Your task to perform on an android device: Open Android settings Image 0: 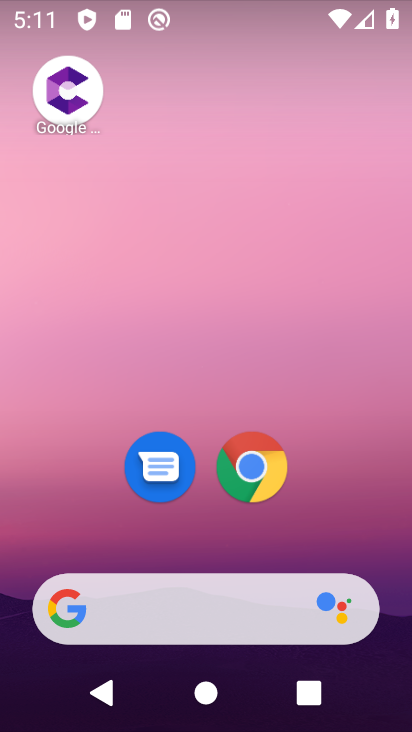
Step 0: drag from (206, 395) to (277, 26)
Your task to perform on an android device: Open Android settings Image 1: 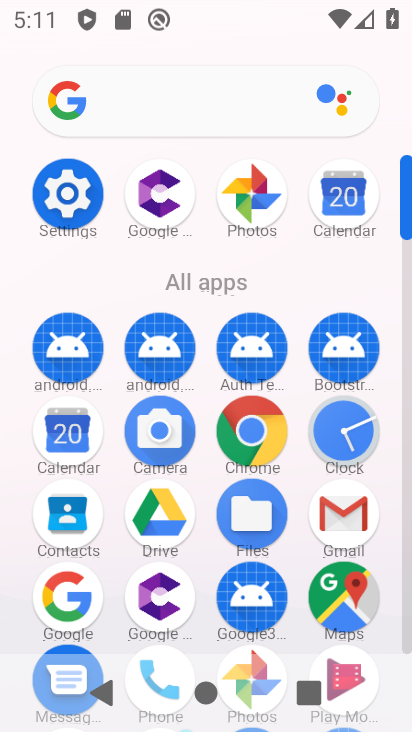
Step 1: click (80, 214)
Your task to perform on an android device: Open Android settings Image 2: 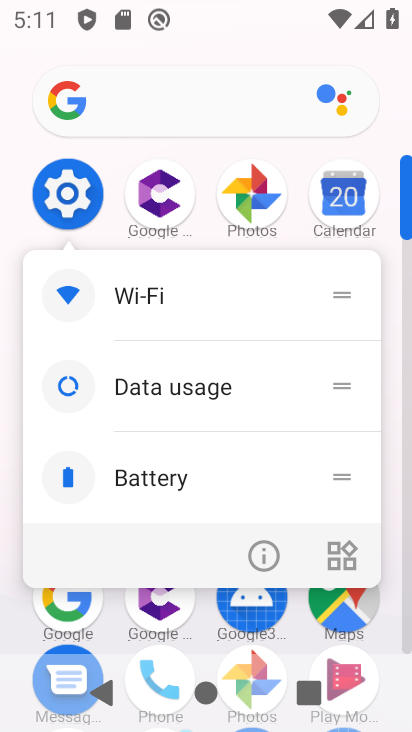
Step 2: click (82, 214)
Your task to perform on an android device: Open Android settings Image 3: 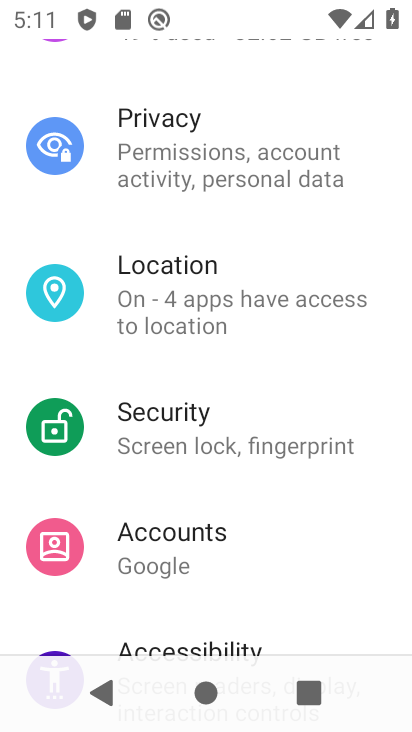
Step 3: drag from (181, 543) to (225, 15)
Your task to perform on an android device: Open Android settings Image 4: 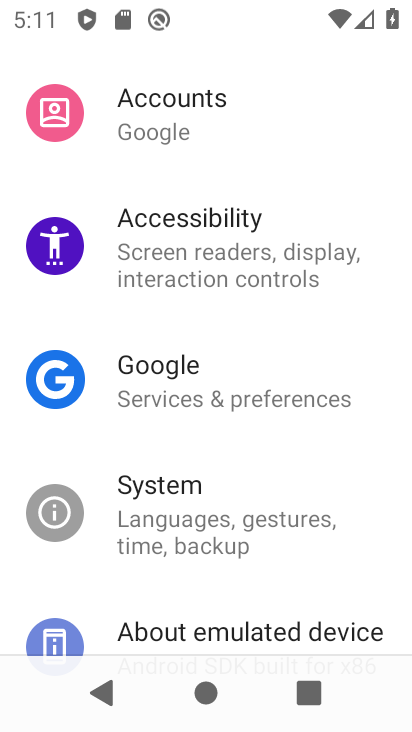
Step 4: drag from (157, 542) to (200, 24)
Your task to perform on an android device: Open Android settings Image 5: 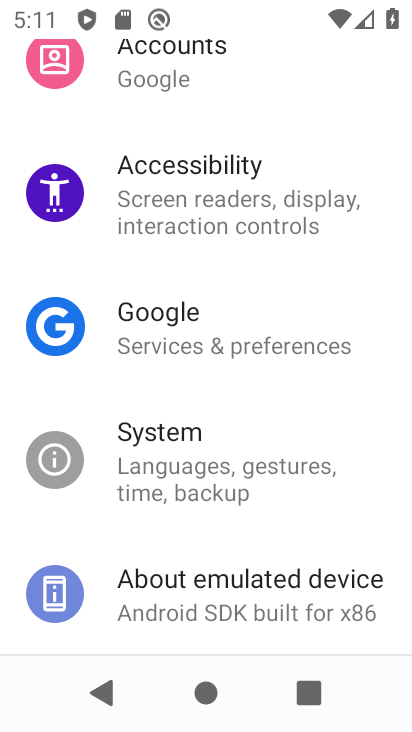
Step 5: drag from (210, 464) to (262, 207)
Your task to perform on an android device: Open Android settings Image 6: 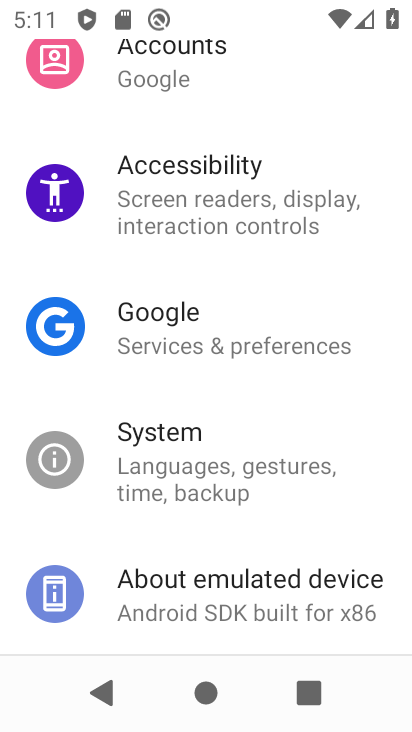
Step 6: click (227, 621)
Your task to perform on an android device: Open Android settings Image 7: 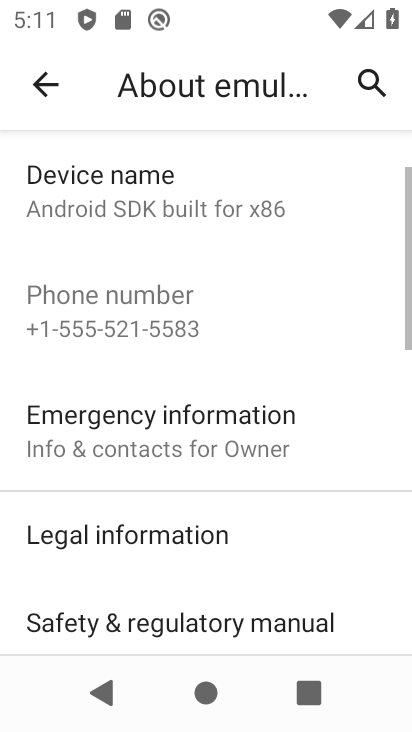
Step 7: drag from (156, 528) to (246, 54)
Your task to perform on an android device: Open Android settings Image 8: 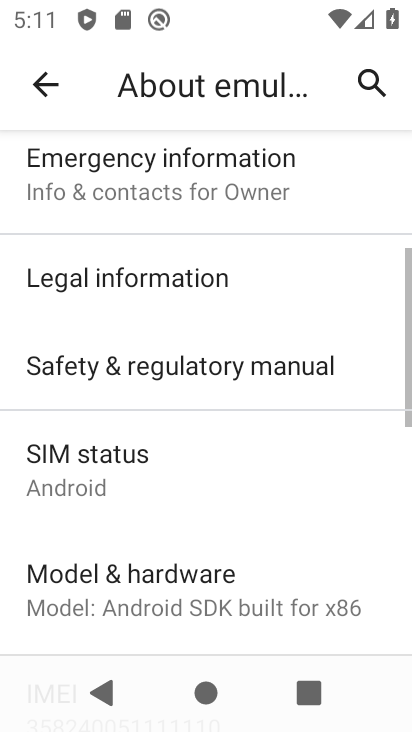
Step 8: drag from (161, 549) to (190, 205)
Your task to perform on an android device: Open Android settings Image 9: 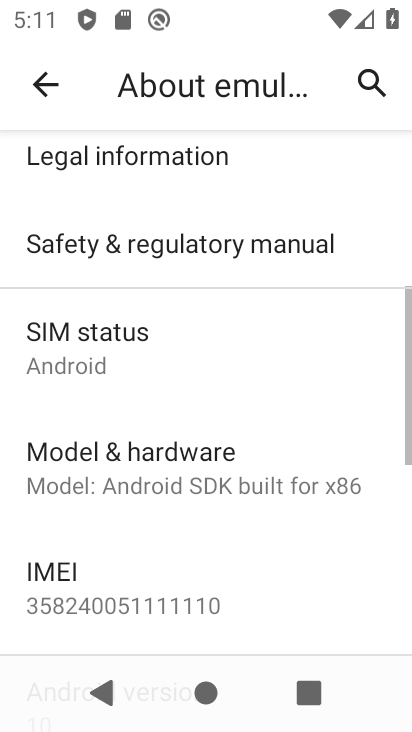
Step 9: drag from (195, 565) to (197, 202)
Your task to perform on an android device: Open Android settings Image 10: 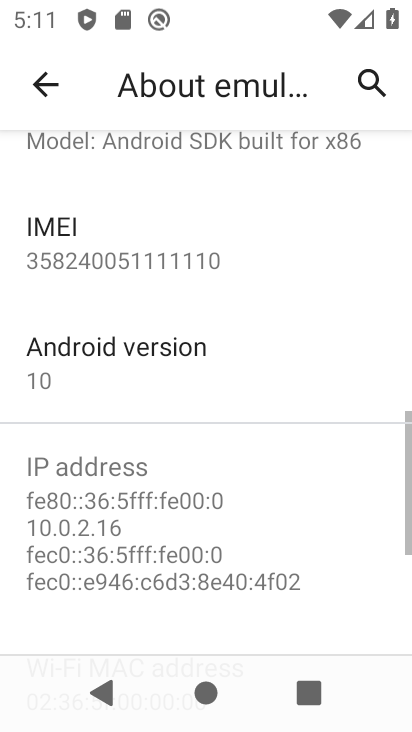
Step 10: click (133, 350)
Your task to perform on an android device: Open Android settings Image 11: 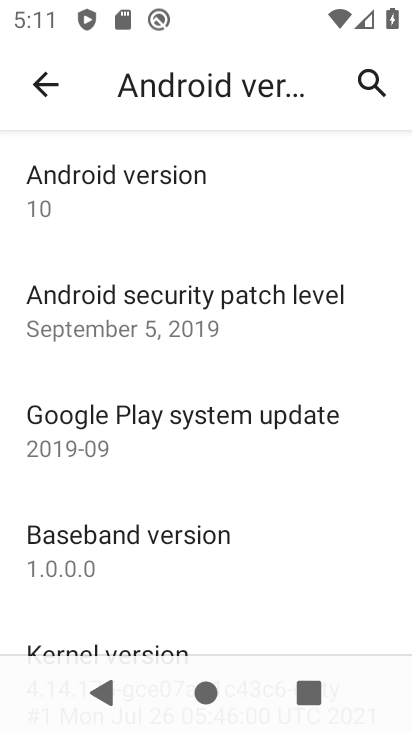
Step 11: task complete